Your task to perform on an android device: open device folders in google photos Image 0: 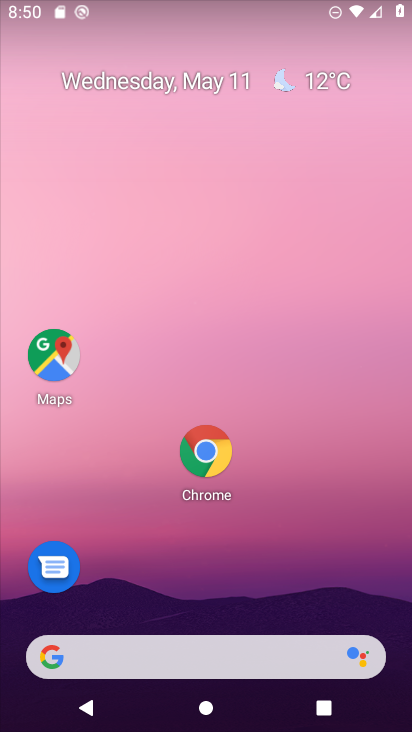
Step 0: drag from (155, 646) to (261, 352)
Your task to perform on an android device: open device folders in google photos Image 1: 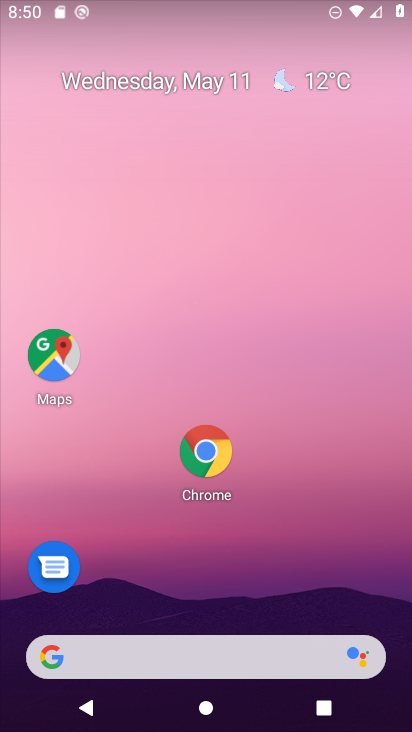
Step 1: drag from (180, 652) to (281, 204)
Your task to perform on an android device: open device folders in google photos Image 2: 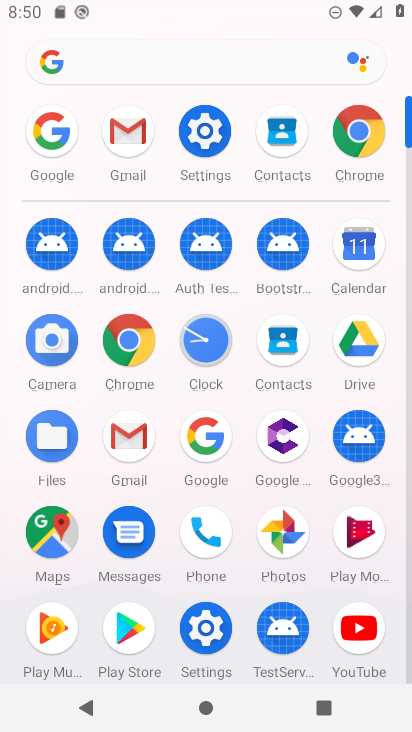
Step 2: click (284, 541)
Your task to perform on an android device: open device folders in google photos Image 3: 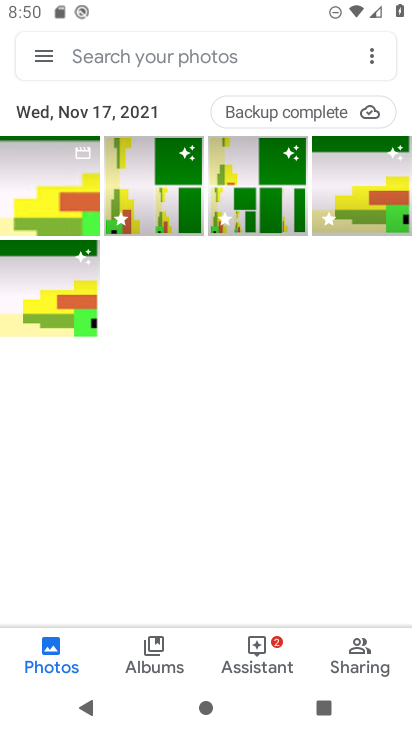
Step 3: click (41, 56)
Your task to perform on an android device: open device folders in google photos Image 4: 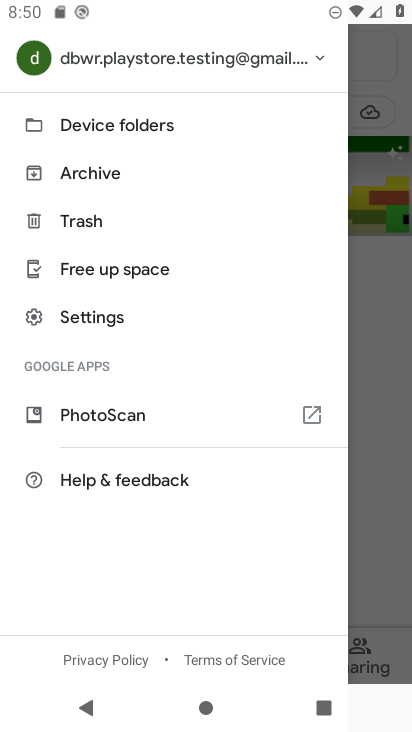
Step 4: click (86, 128)
Your task to perform on an android device: open device folders in google photos Image 5: 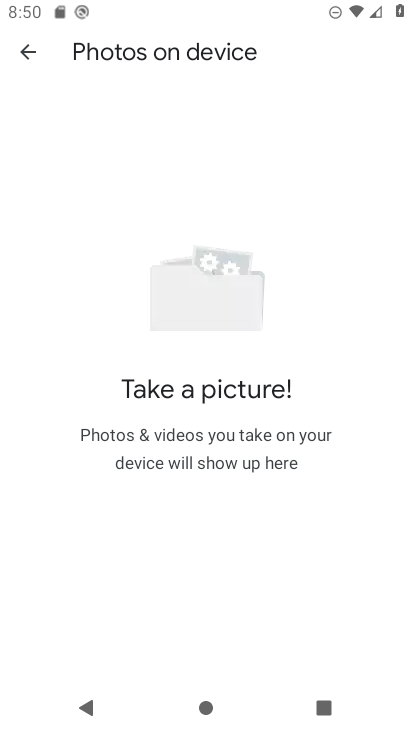
Step 5: task complete